Your task to perform on an android device: add a label to a message in the gmail app Image 0: 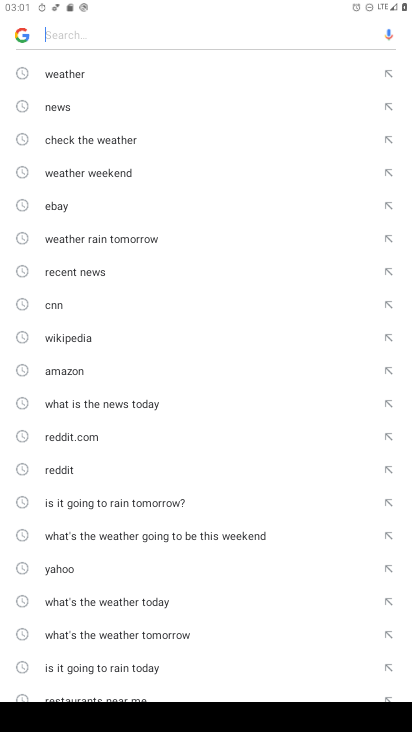
Step 0: press home button
Your task to perform on an android device: add a label to a message in the gmail app Image 1: 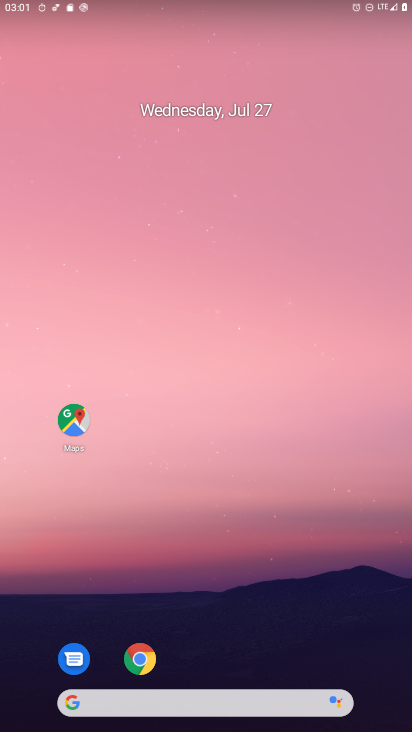
Step 1: drag from (295, 615) to (291, 128)
Your task to perform on an android device: add a label to a message in the gmail app Image 2: 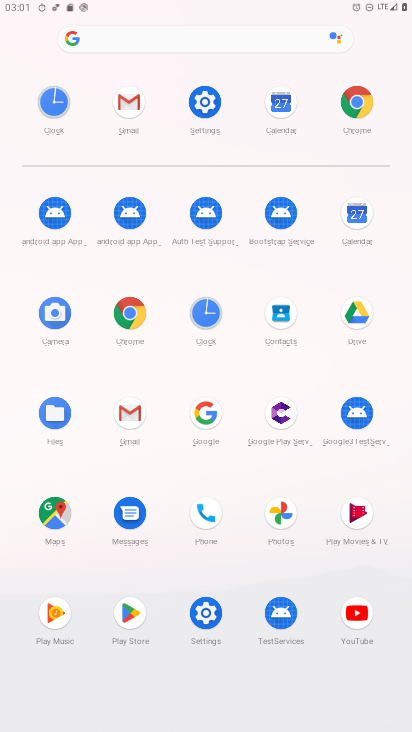
Step 2: click (122, 422)
Your task to perform on an android device: add a label to a message in the gmail app Image 3: 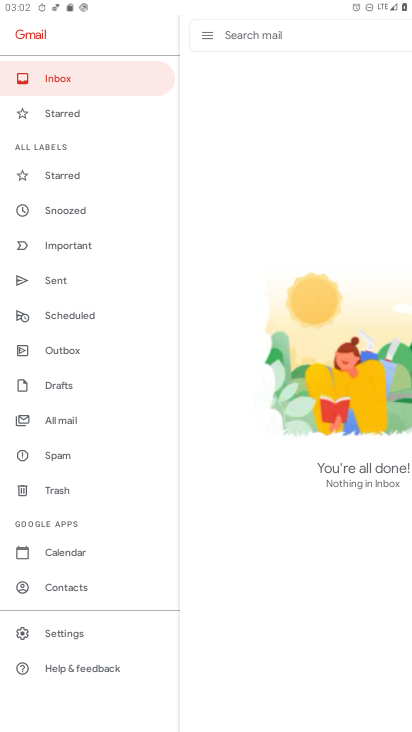
Step 3: task complete